Your task to perform on an android device: Open maps Image 0: 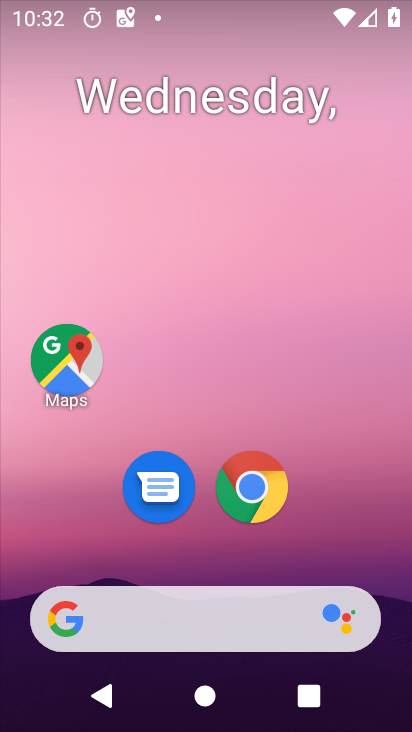
Step 0: drag from (330, 546) to (303, 22)
Your task to perform on an android device: Open maps Image 1: 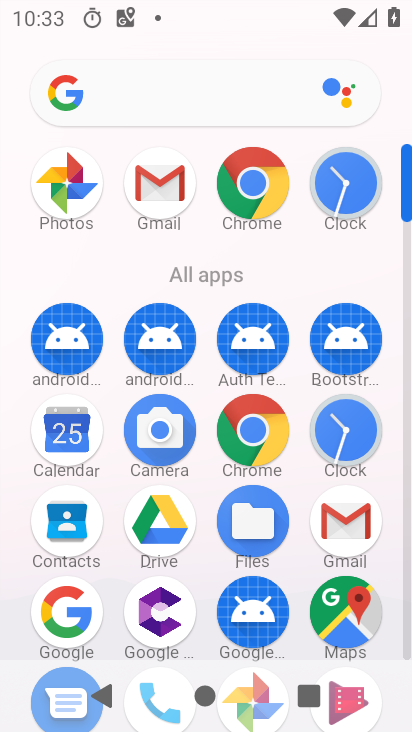
Step 1: click (375, 632)
Your task to perform on an android device: Open maps Image 2: 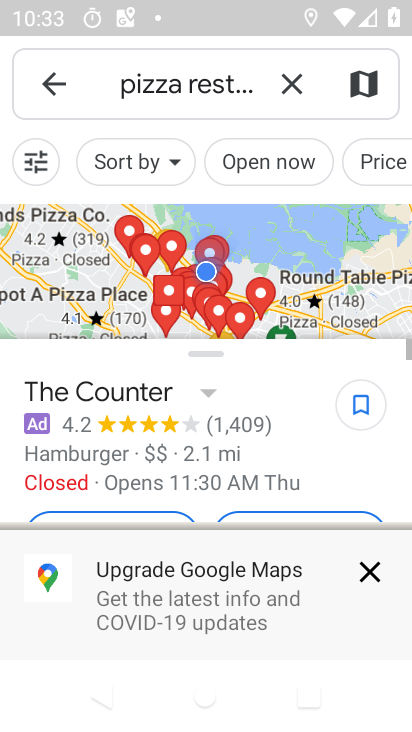
Step 2: task complete